Your task to perform on an android device: Open Google Image 0: 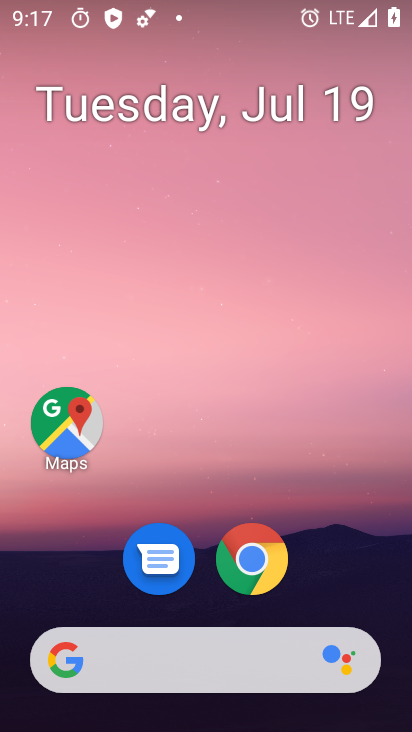
Step 0: drag from (397, 619) to (367, 225)
Your task to perform on an android device: Open Google Image 1: 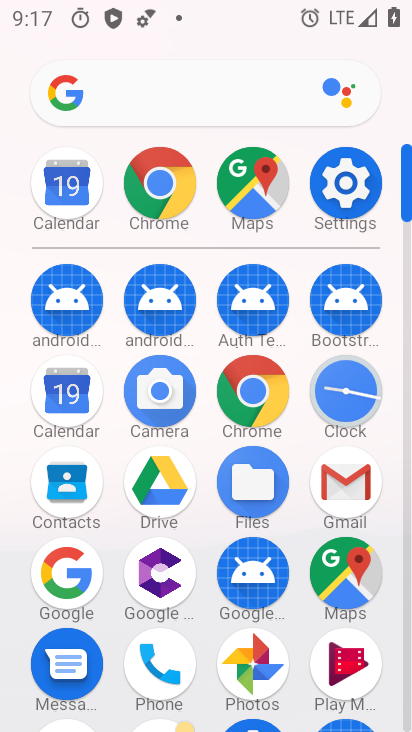
Step 1: click (165, 552)
Your task to perform on an android device: Open Google Image 2: 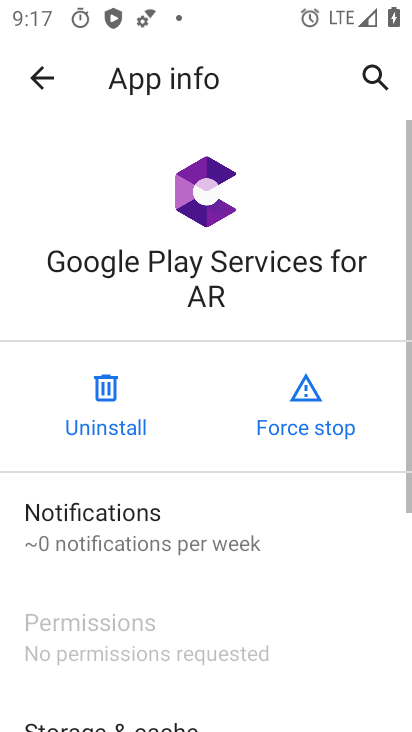
Step 2: task complete